Your task to perform on an android device: Open Yahoo.com Image 0: 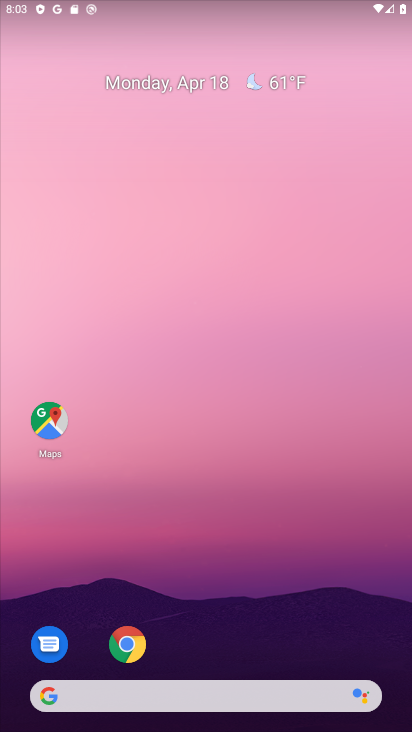
Step 0: click (122, 641)
Your task to perform on an android device: Open Yahoo.com Image 1: 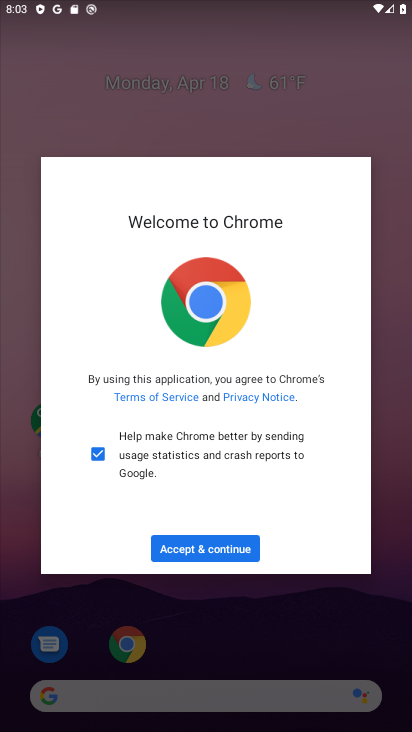
Step 1: click (230, 544)
Your task to perform on an android device: Open Yahoo.com Image 2: 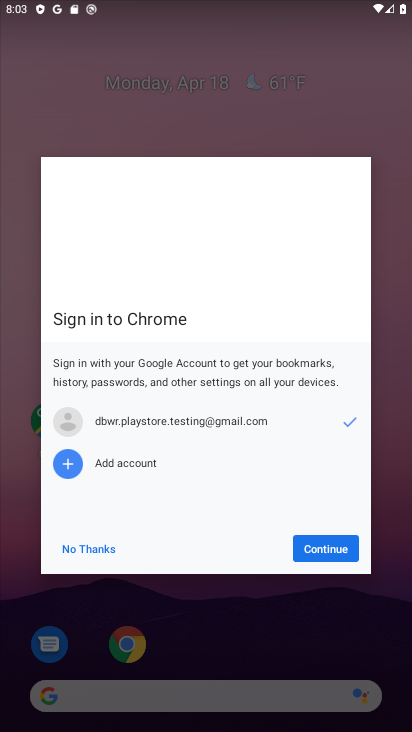
Step 2: click (338, 551)
Your task to perform on an android device: Open Yahoo.com Image 3: 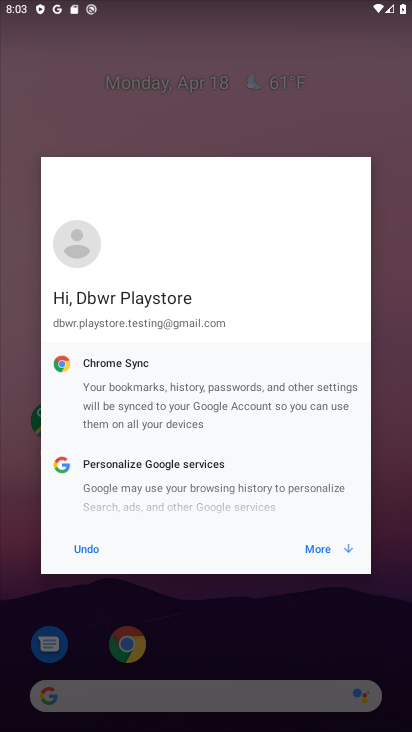
Step 3: click (338, 551)
Your task to perform on an android device: Open Yahoo.com Image 4: 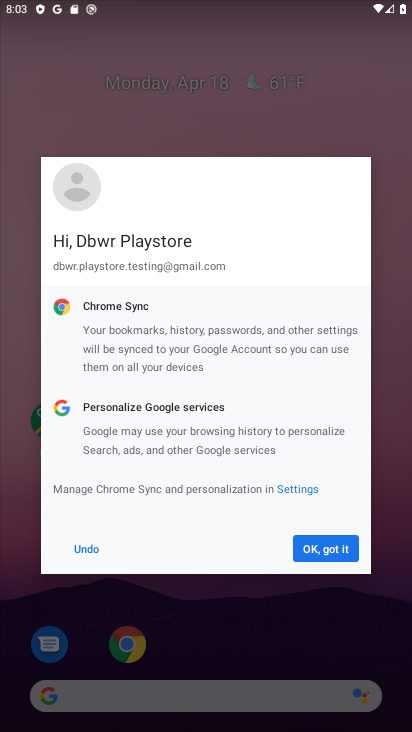
Step 4: click (338, 551)
Your task to perform on an android device: Open Yahoo.com Image 5: 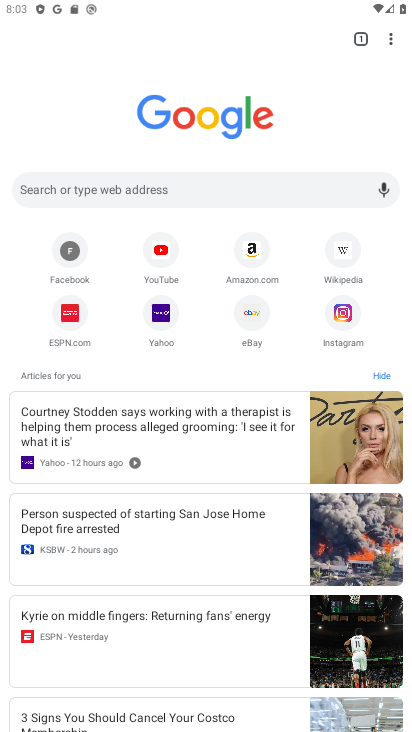
Step 5: click (171, 322)
Your task to perform on an android device: Open Yahoo.com Image 6: 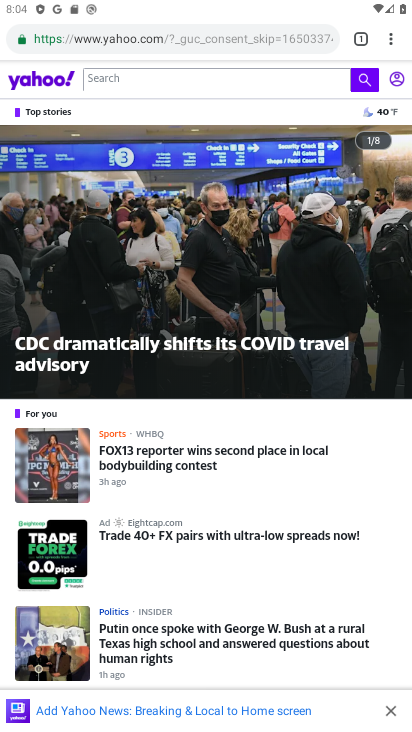
Step 6: task complete